Your task to perform on an android device: Turn off the flashlight Image 0: 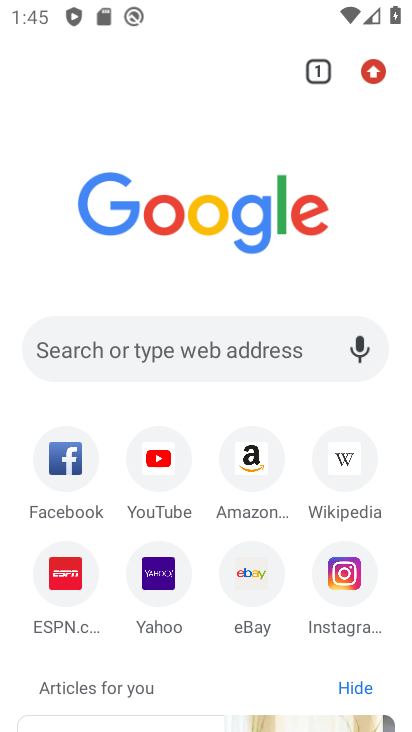
Step 0: press home button
Your task to perform on an android device: Turn off the flashlight Image 1: 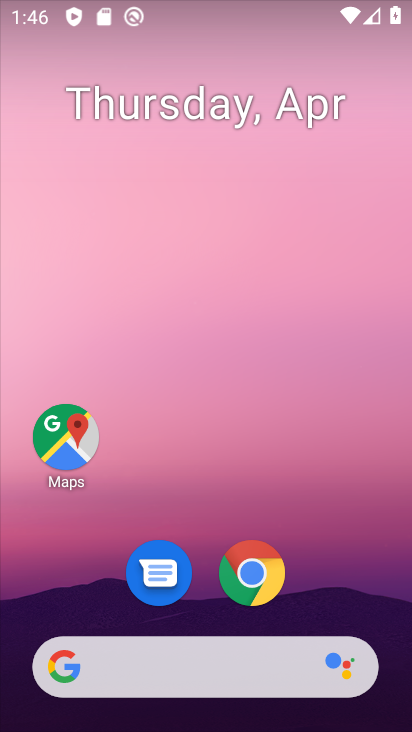
Step 1: drag from (347, 599) to (260, 37)
Your task to perform on an android device: Turn off the flashlight Image 2: 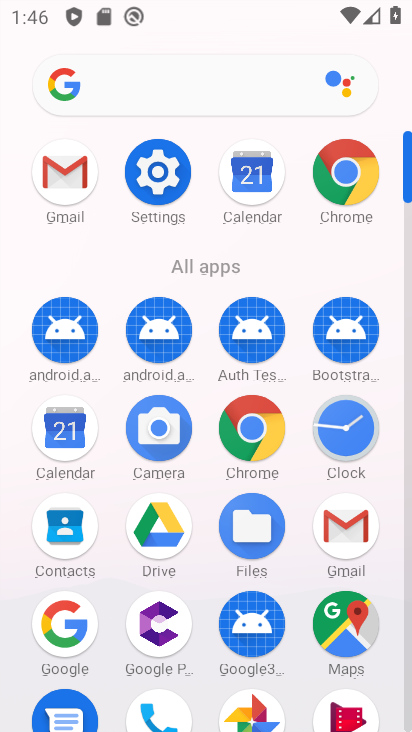
Step 2: click (140, 179)
Your task to perform on an android device: Turn off the flashlight Image 3: 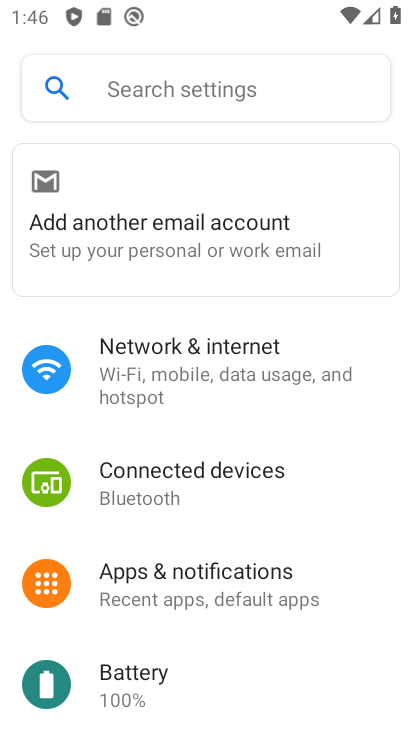
Step 3: task complete